Your task to perform on an android device: Open eBay Image 0: 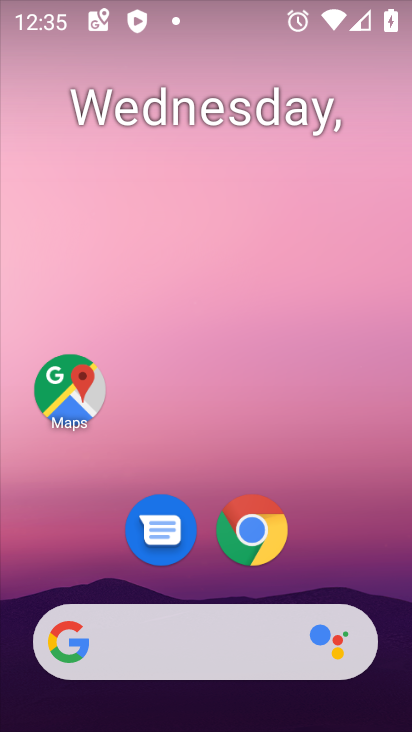
Step 0: drag from (196, 589) to (217, 234)
Your task to perform on an android device: Open eBay Image 1: 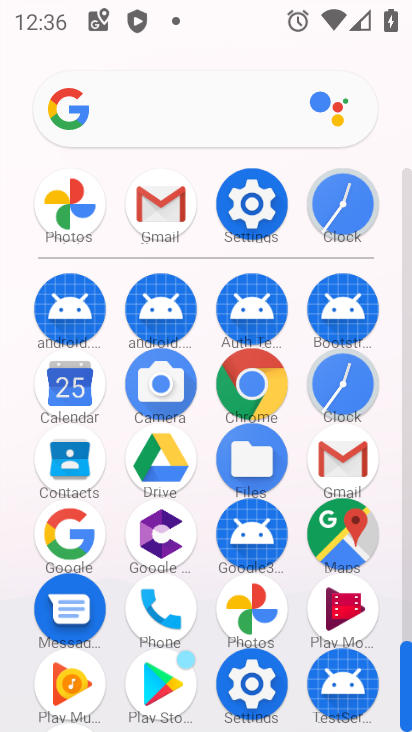
Step 1: click (257, 383)
Your task to perform on an android device: Open eBay Image 2: 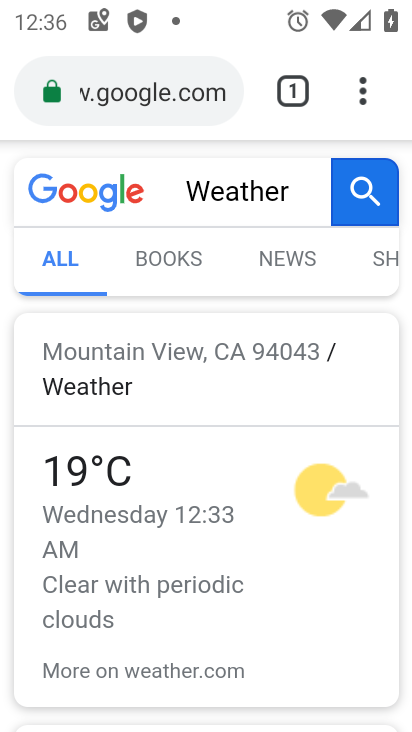
Step 2: click (167, 99)
Your task to perform on an android device: Open eBay Image 3: 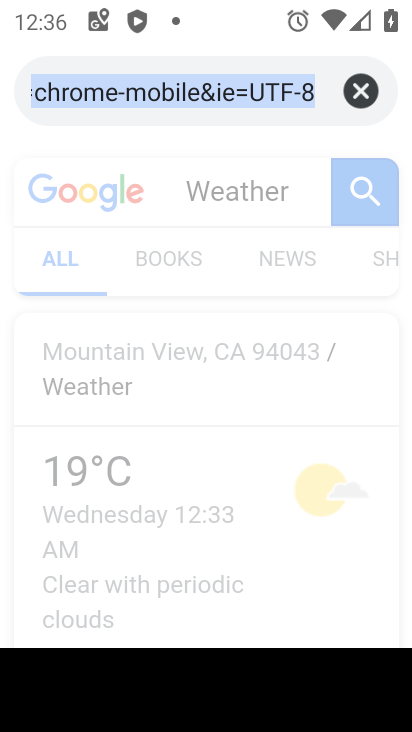
Step 3: type "eBay"
Your task to perform on an android device: Open eBay Image 4: 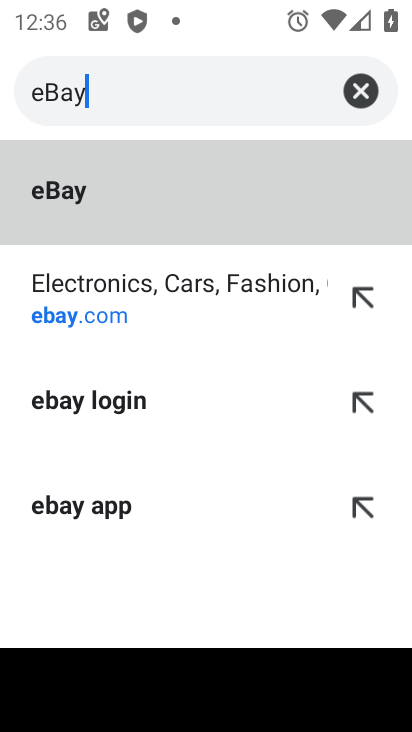
Step 4: click (104, 200)
Your task to perform on an android device: Open eBay Image 5: 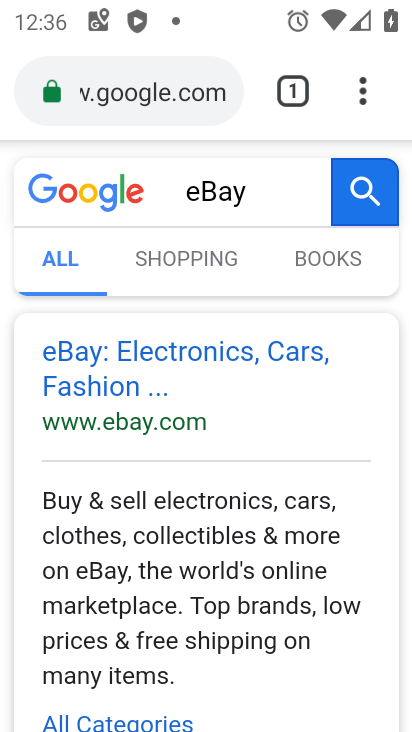
Step 5: task complete